Your task to perform on an android device: snooze an email in the gmail app Image 0: 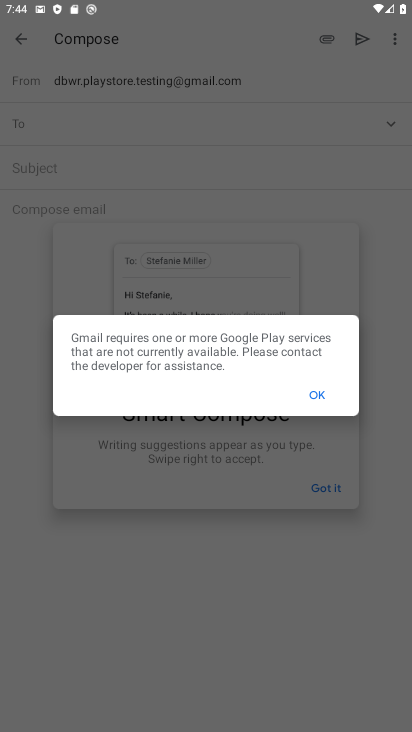
Step 0: press home button
Your task to perform on an android device: snooze an email in the gmail app Image 1: 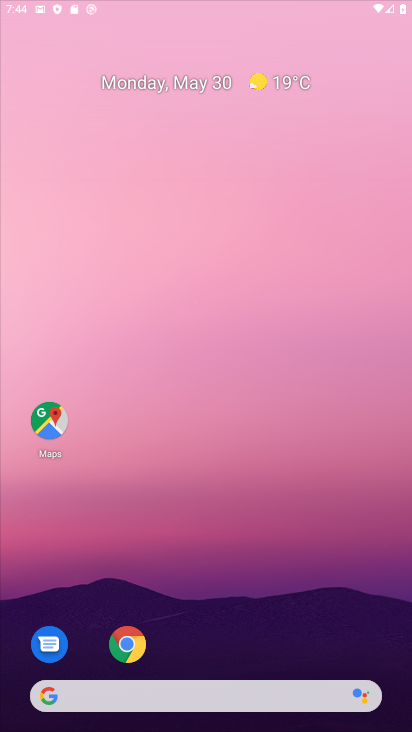
Step 1: drag from (209, 524) to (154, 2)
Your task to perform on an android device: snooze an email in the gmail app Image 2: 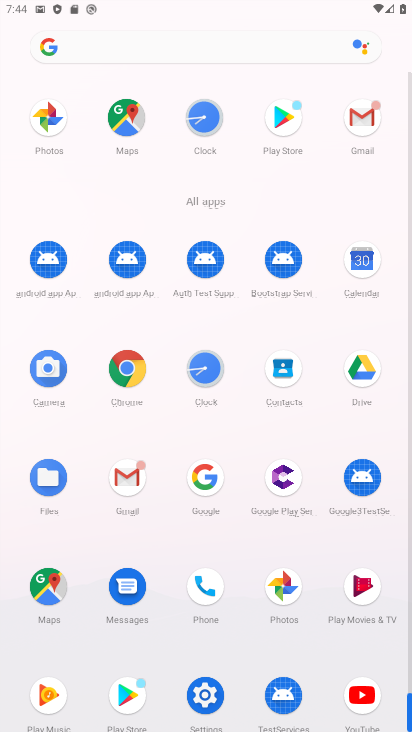
Step 2: click (120, 471)
Your task to perform on an android device: snooze an email in the gmail app Image 3: 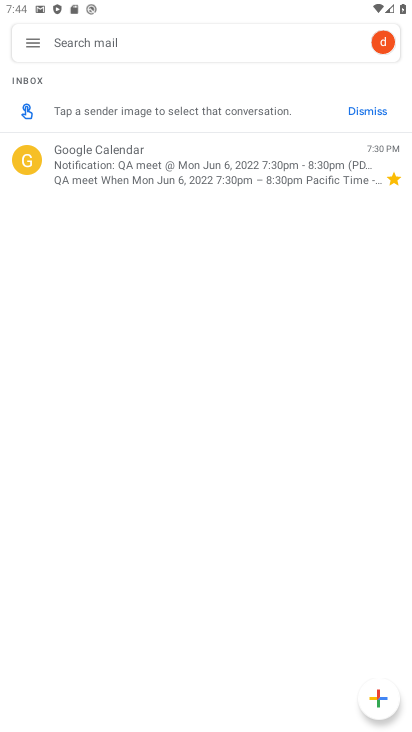
Step 3: click (37, 47)
Your task to perform on an android device: snooze an email in the gmail app Image 4: 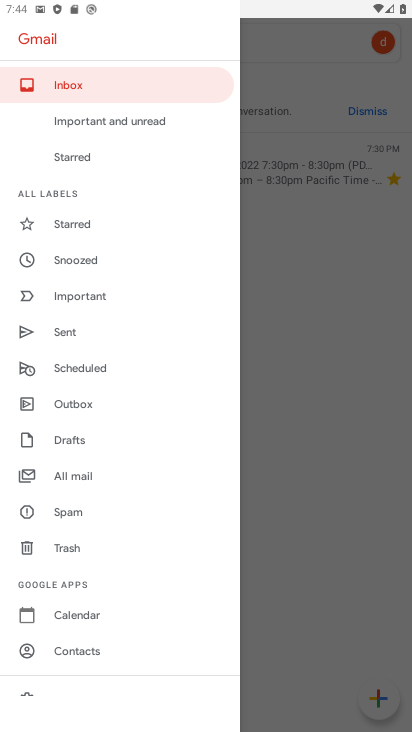
Step 4: click (98, 270)
Your task to perform on an android device: snooze an email in the gmail app Image 5: 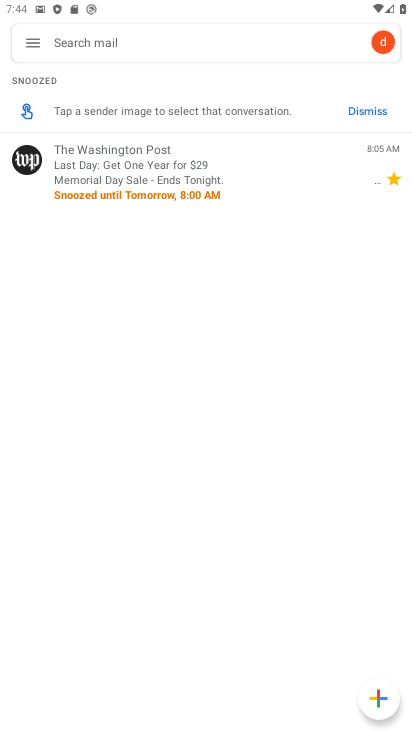
Step 5: drag from (173, 613) to (253, 168)
Your task to perform on an android device: snooze an email in the gmail app Image 6: 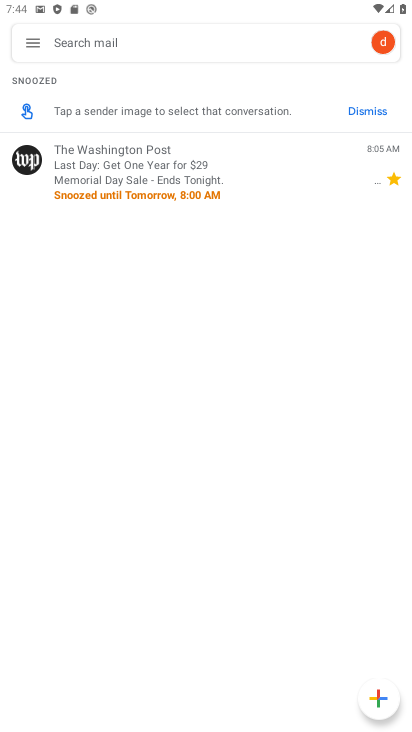
Step 6: click (38, 33)
Your task to perform on an android device: snooze an email in the gmail app Image 7: 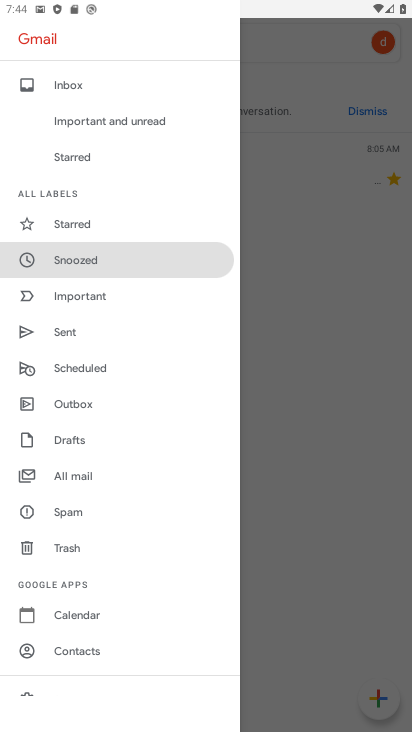
Step 7: click (85, 254)
Your task to perform on an android device: snooze an email in the gmail app Image 8: 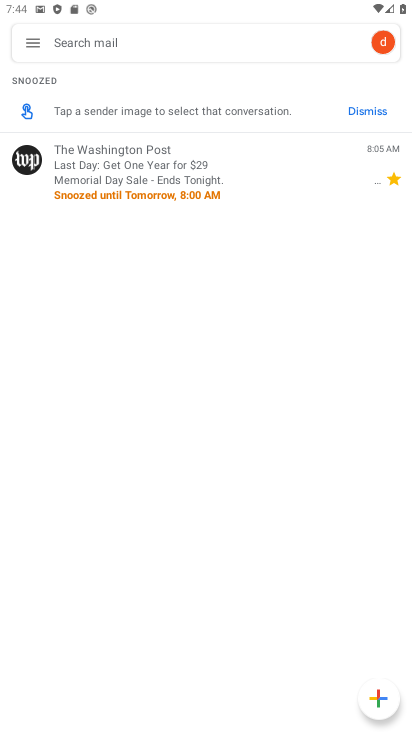
Step 8: task complete